Your task to perform on an android device: Show me popular videos on Youtube Image 0: 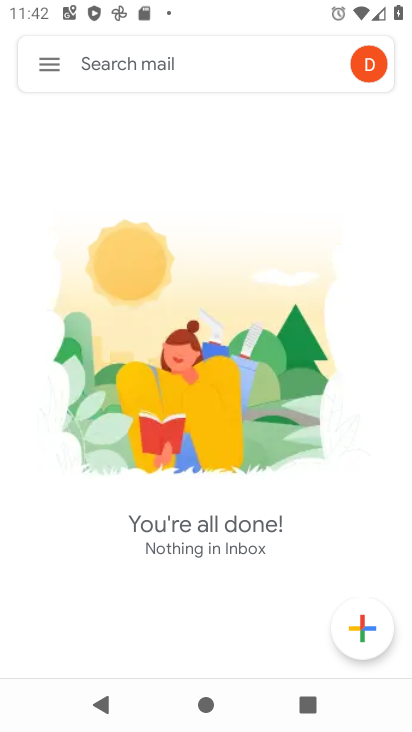
Step 0: press home button
Your task to perform on an android device: Show me popular videos on Youtube Image 1: 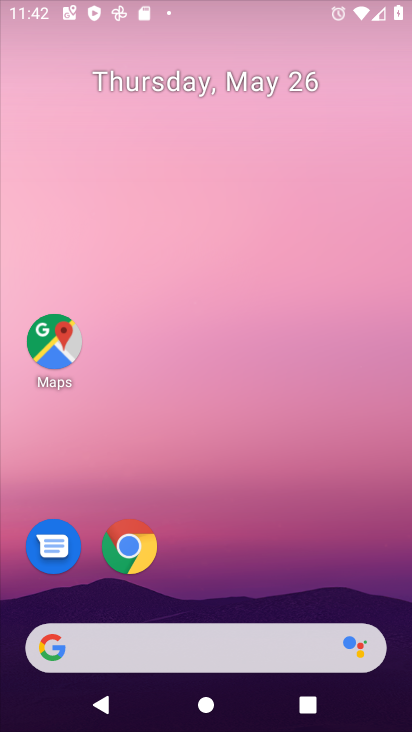
Step 1: drag from (268, 554) to (282, 56)
Your task to perform on an android device: Show me popular videos on Youtube Image 2: 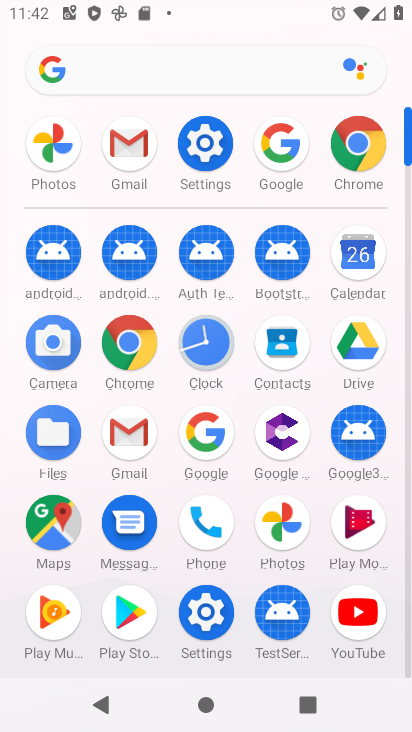
Step 2: click (356, 609)
Your task to perform on an android device: Show me popular videos on Youtube Image 3: 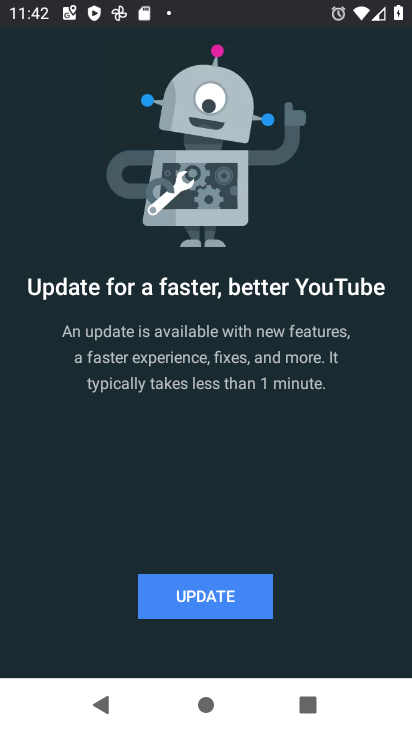
Step 3: click (209, 602)
Your task to perform on an android device: Show me popular videos on Youtube Image 4: 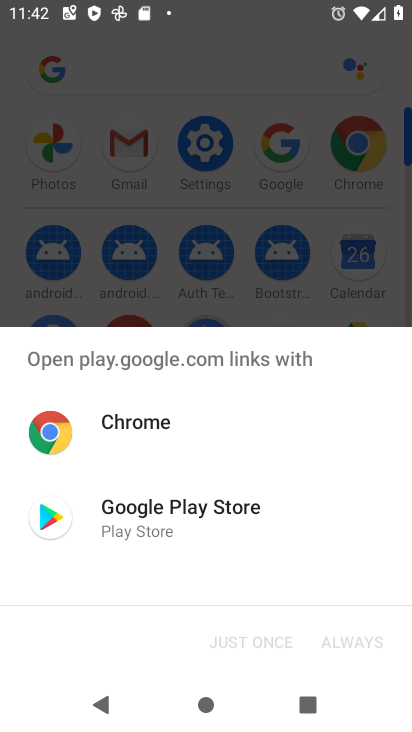
Step 4: click (152, 506)
Your task to perform on an android device: Show me popular videos on Youtube Image 5: 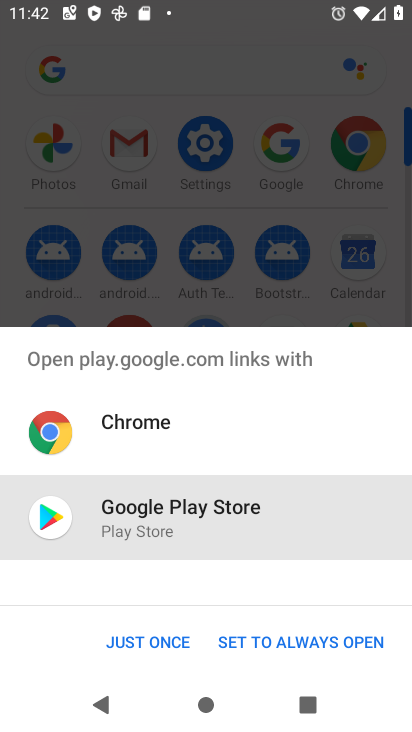
Step 5: click (152, 630)
Your task to perform on an android device: Show me popular videos on Youtube Image 6: 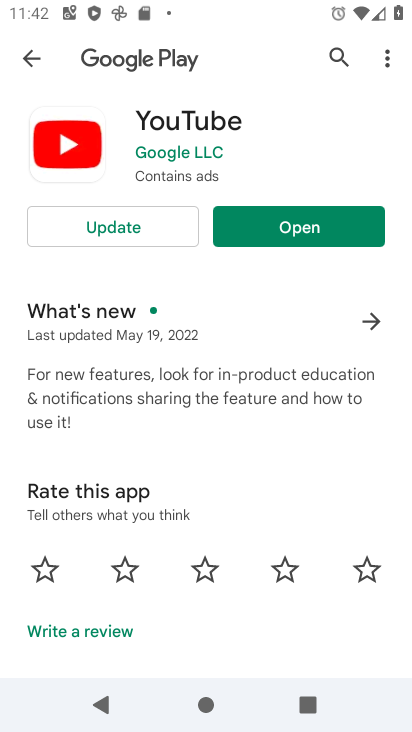
Step 6: click (120, 220)
Your task to perform on an android device: Show me popular videos on Youtube Image 7: 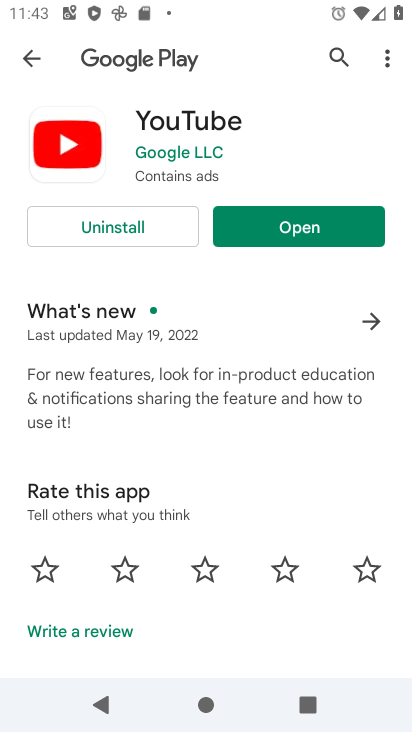
Step 7: click (291, 221)
Your task to perform on an android device: Show me popular videos on Youtube Image 8: 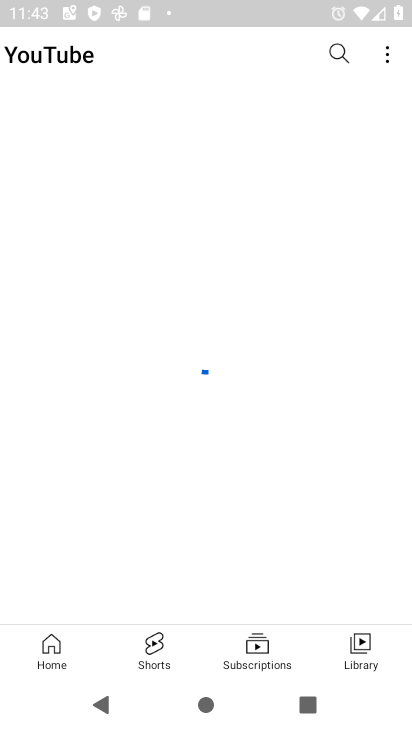
Step 8: click (48, 650)
Your task to perform on an android device: Show me popular videos on Youtube Image 9: 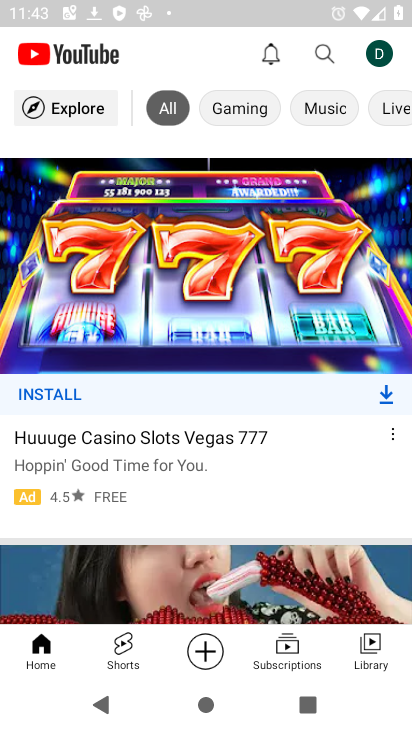
Step 9: task complete